Your task to perform on an android device: Open the stopwatch Image 0: 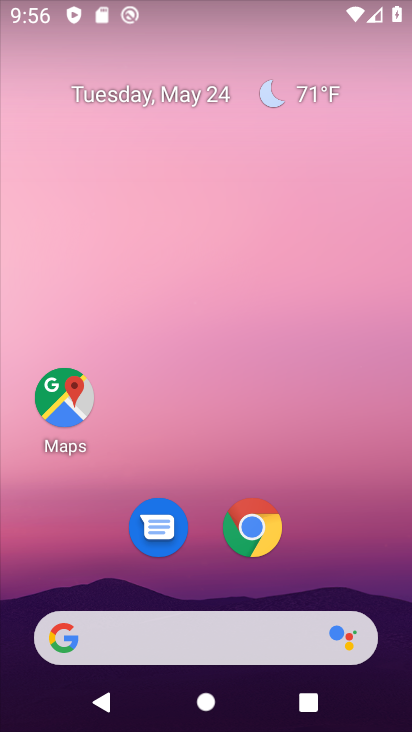
Step 0: drag from (212, 565) to (245, 105)
Your task to perform on an android device: Open the stopwatch Image 1: 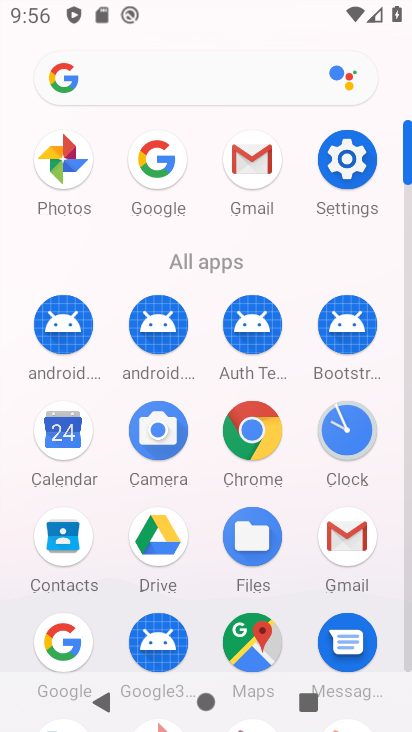
Step 1: click (351, 429)
Your task to perform on an android device: Open the stopwatch Image 2: 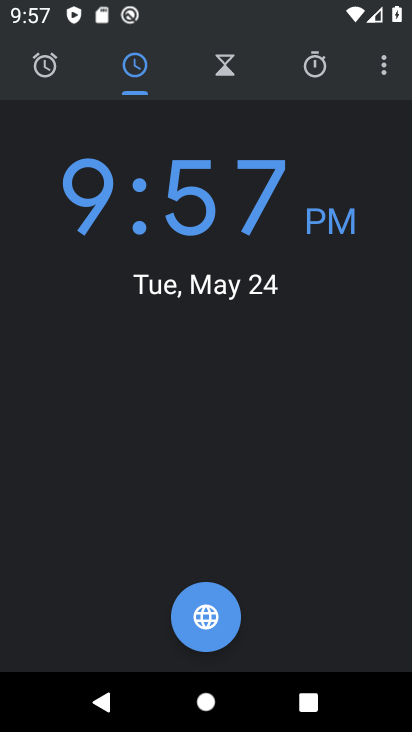
Step 2: click (319, 63)
Your task to perform on an android device: Open the stopwatch Image 3: 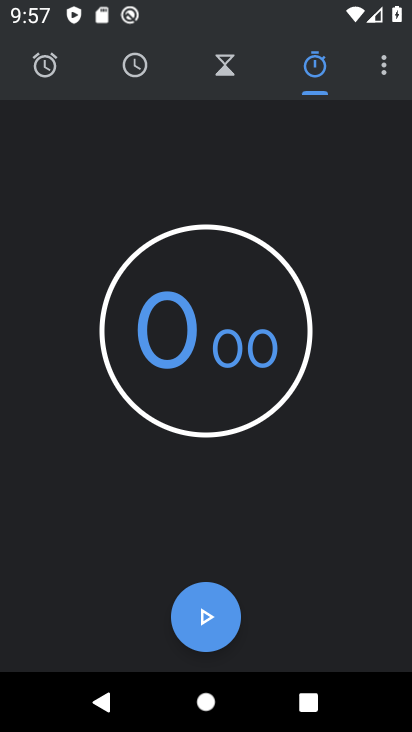
Step 3: click (214, 613)
Your task to perform on an android device: Open the stopwatch Image 4: 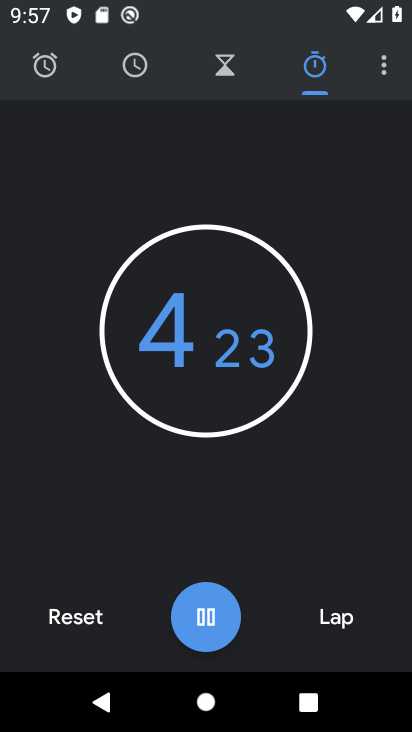
Step 4: task complete